Your task to perform on an android device: check android version Image 0: 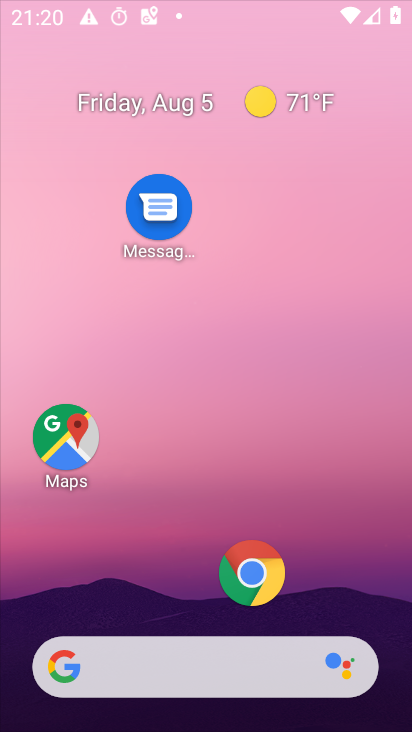
Step 0: press home button
Your task to perform on an android device: check android version Image 1: 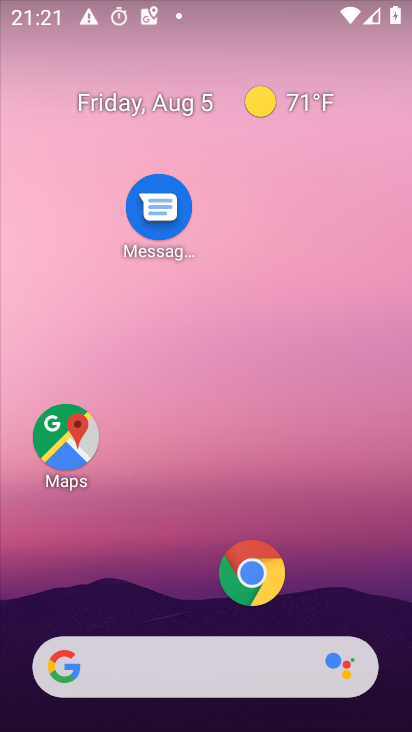
Step 1: drag from (202, 615) to (237, 10)
Your task to perform on an android device: check android version Image 2: 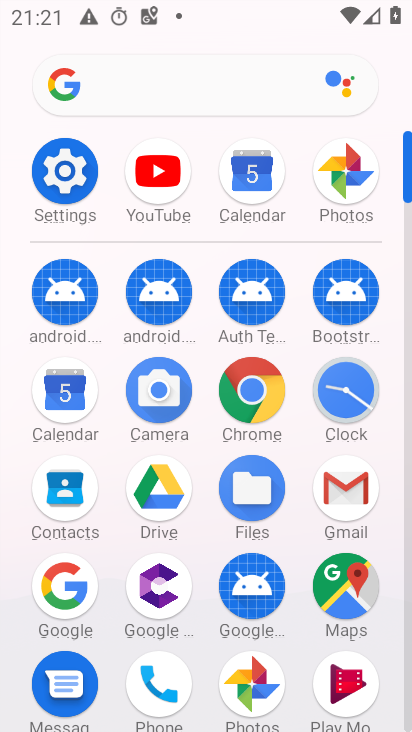
Step 2: click (62, 163)
Your task to perform on an android device: check android version Image 3: 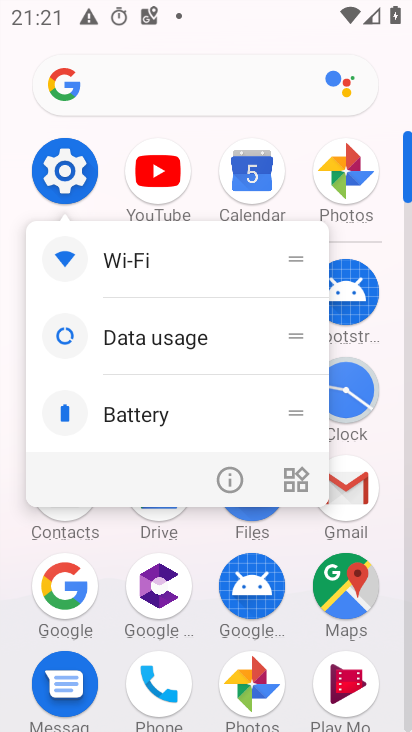
Step 3: click (62, 163)
Your task to perform on an android device: check android version Image 4: 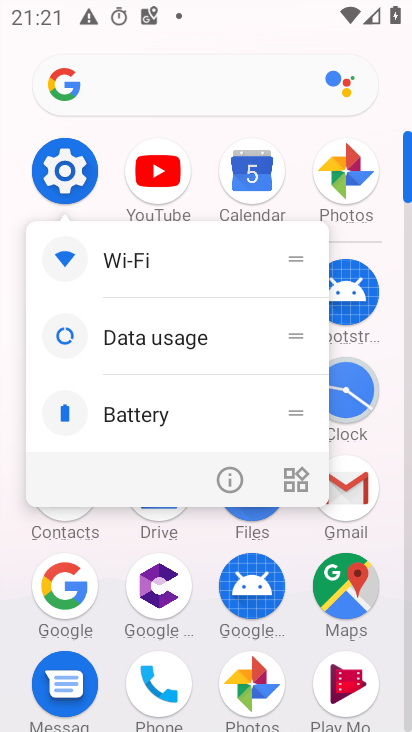
Step 4: click (62, 163)
Your task to perform on an android device: check android version Image 5: 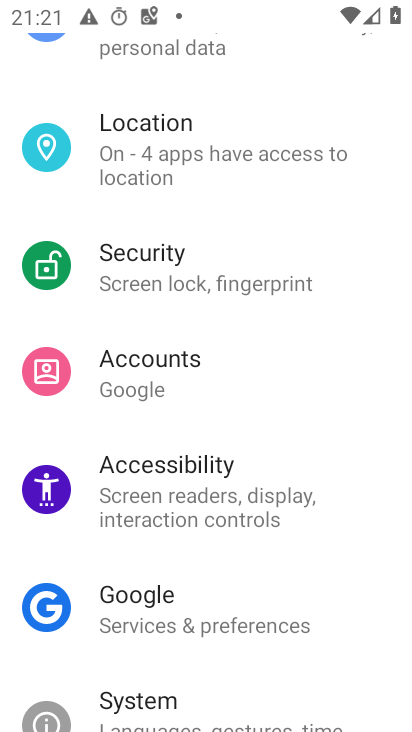
Step 5: drag from (206, 703) to (224, 130)
Your task to perform on an android device: check android version Image 6: 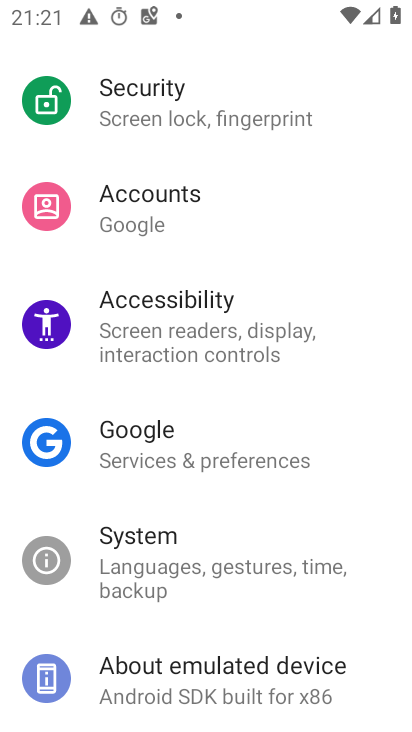
Step 6: click (77, 673)
Your task to perform on an android device: check android version Image 7: 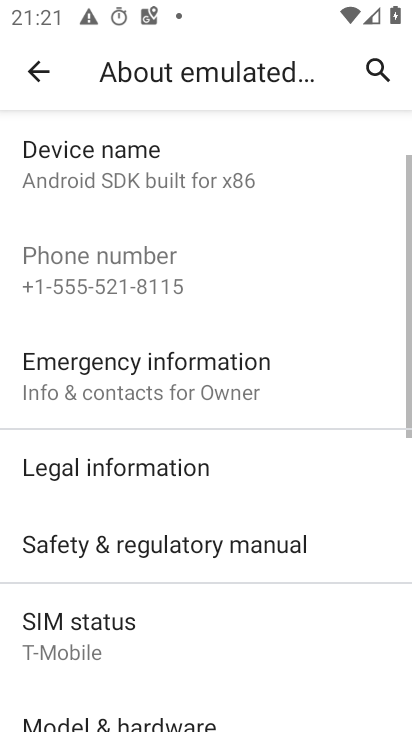
Step 7: drag from (196, 685) to (219, 155)
Your task to perform on an android device: check android version Image 8: 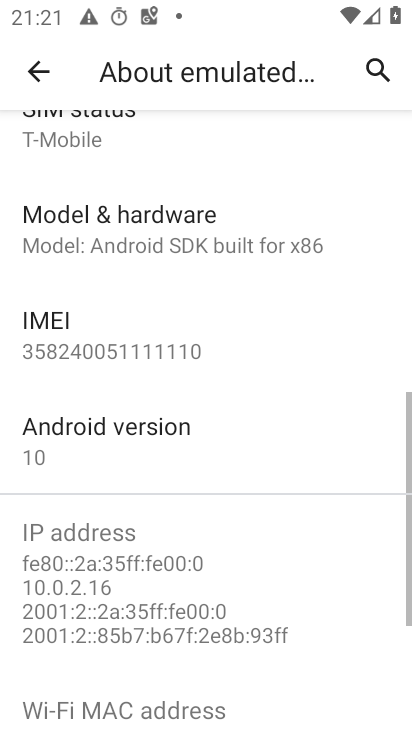
Step 8: click (69, 453)
Your task to perform on an android device: check android version Image 9: 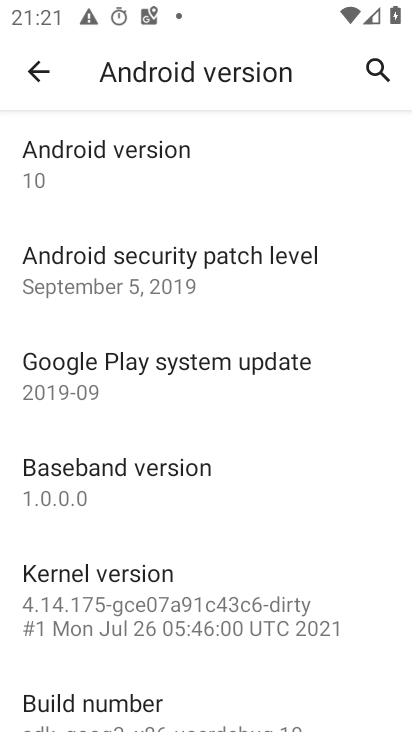
Step 9: task complete